Your task to perform on an android device: uninstall "Google Play Games" Image 0: 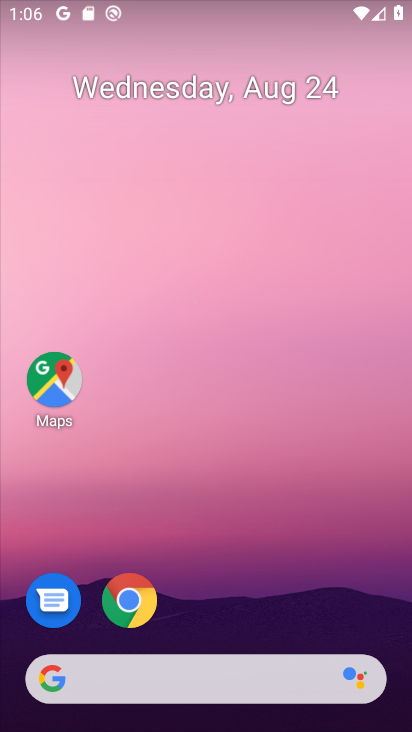
Step 0: drag from (221, 612) to (217, 27)
Your task to perform on an android device: uninstall "Google Play Games" Image 1: 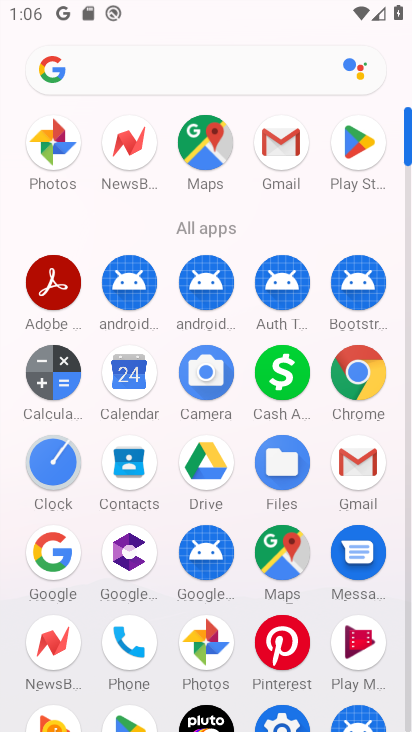
Step 1: click (354, 147)
Your task to perform on an android device: uninstall "Google Play Games" Image 2: 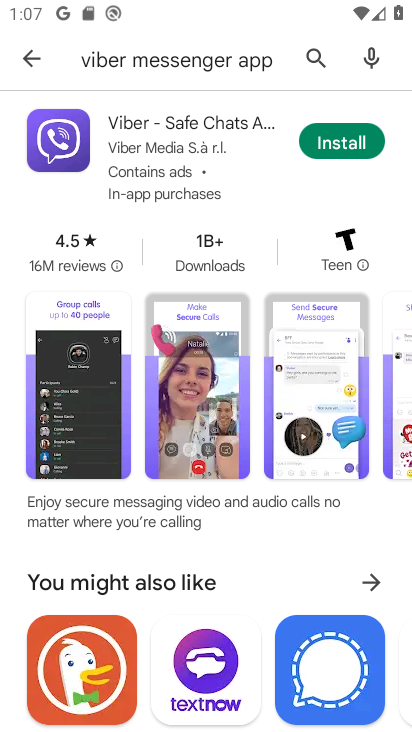
Step 2: click (310, 55)
Your task to perform on an android device: uninstall "Google Play Games" Image 3: 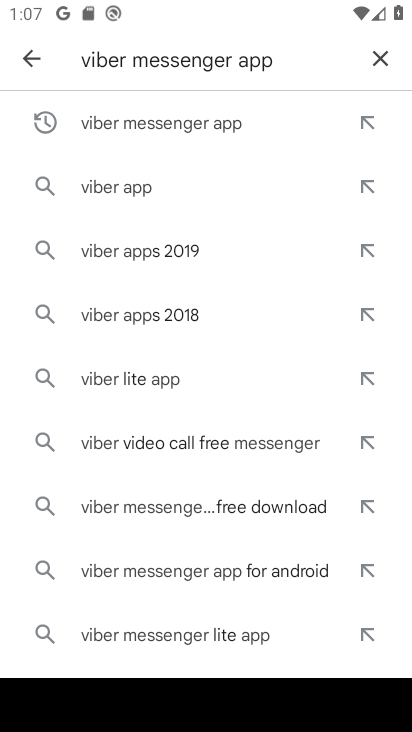
Step 3: click (384, 54)
Your task to perform on an android device: uninstall "Google Play Games" Image 4: 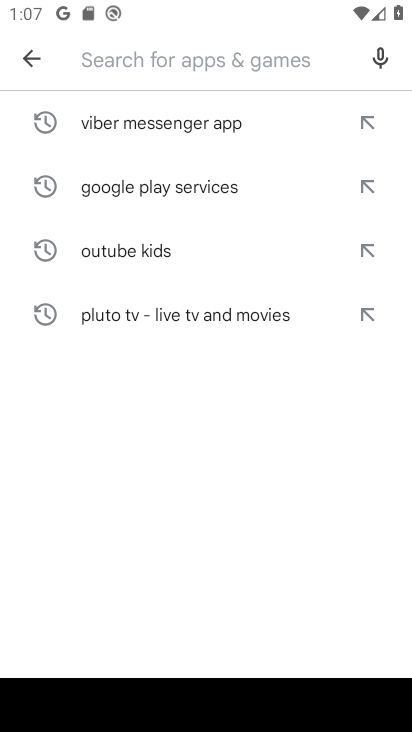
Step 4: type "Google Play Games"
Your task to perform on an android device: uninstall "Google Play Games" Image 5: 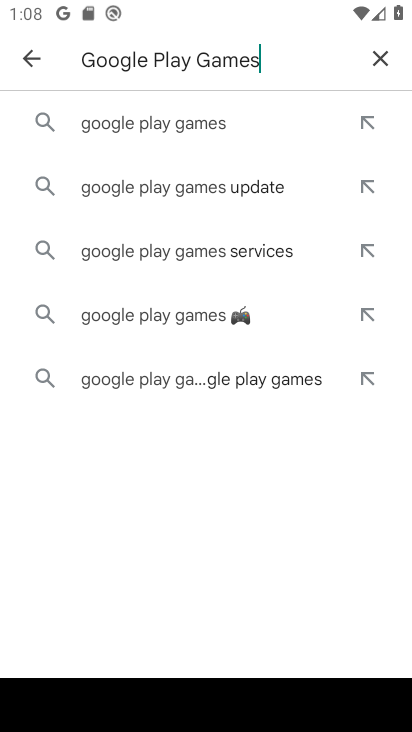
Step 5: click (205, 124)
Your task to perform on an android device: uninstall "Google Play Games" Image 6: 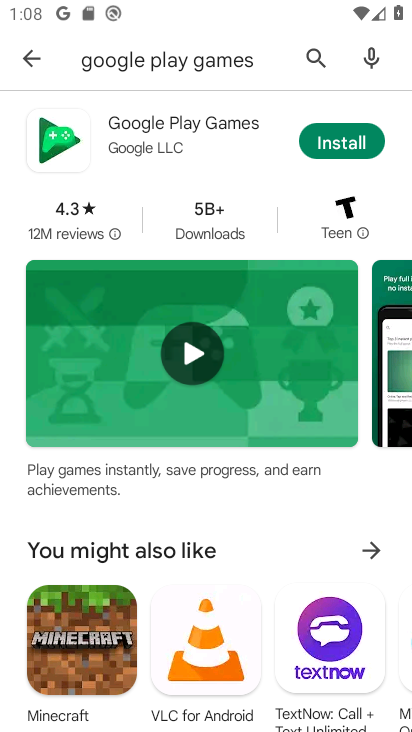
Step 6: task complete